Your task to perform on an android device: How do I get to the nearest Nordstrom? Image 0: 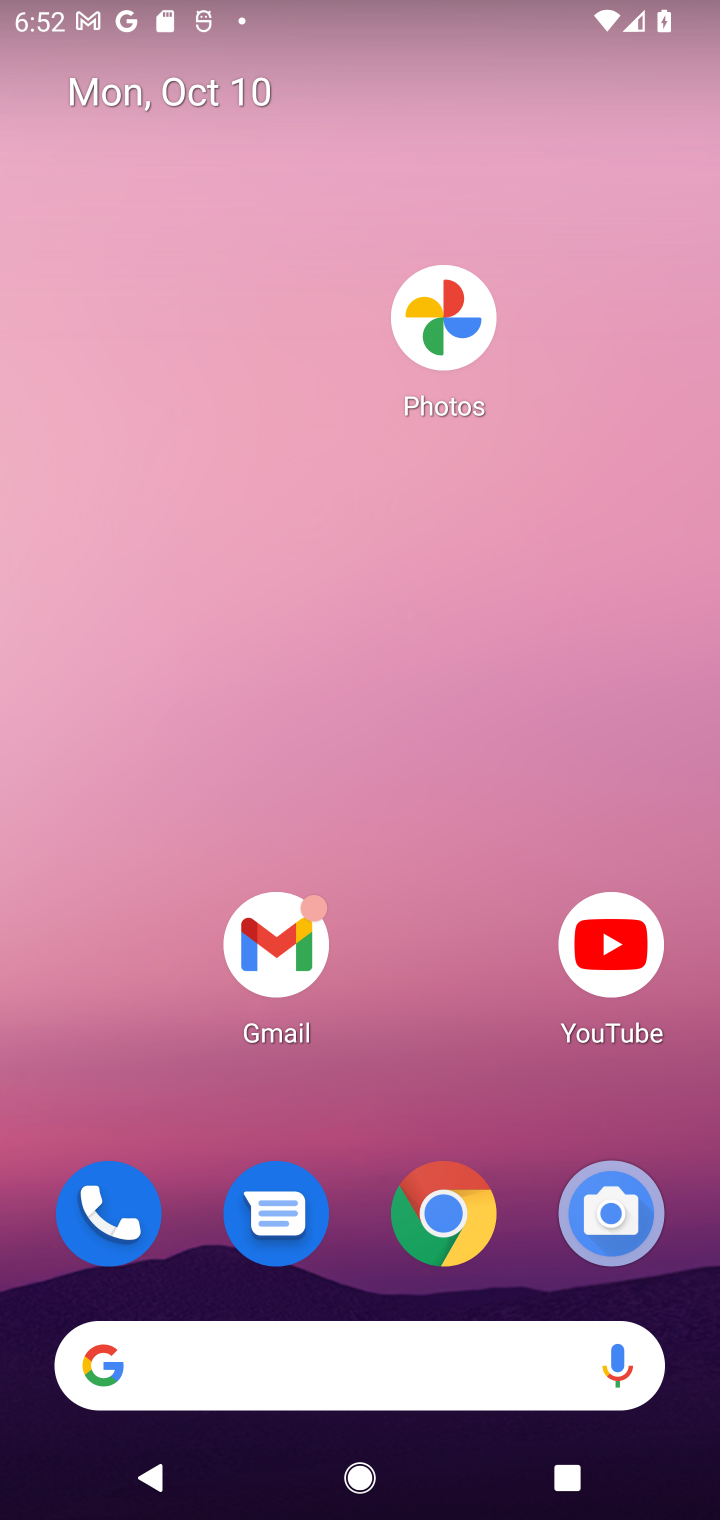
Step 0: click (371, 1349)
Your task to perform on an android device: How do I get to the nearest Nordstrom? Image 1: 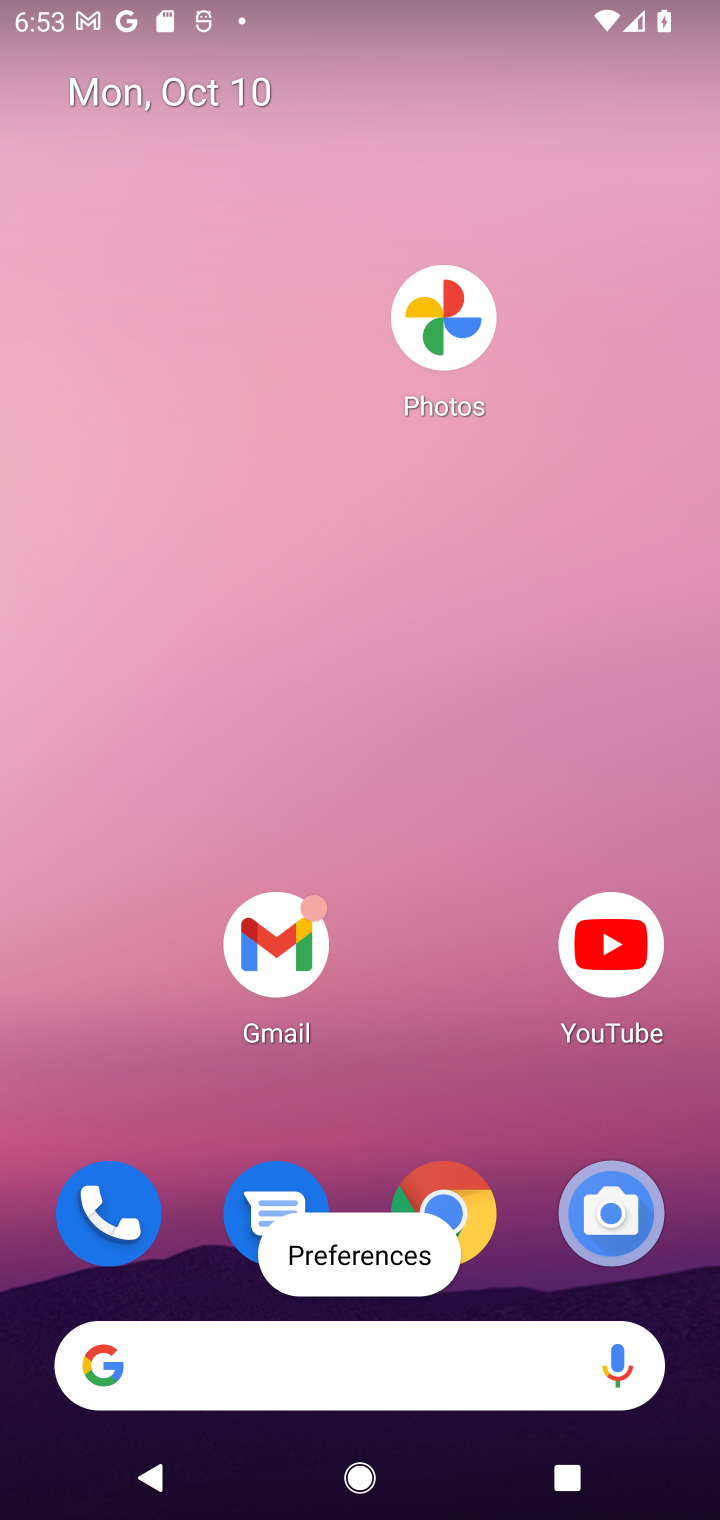
Step 1: click (298, 1375)
Your task to perform on an android device: How do I get to the nearest Nordstrom? Image 2: 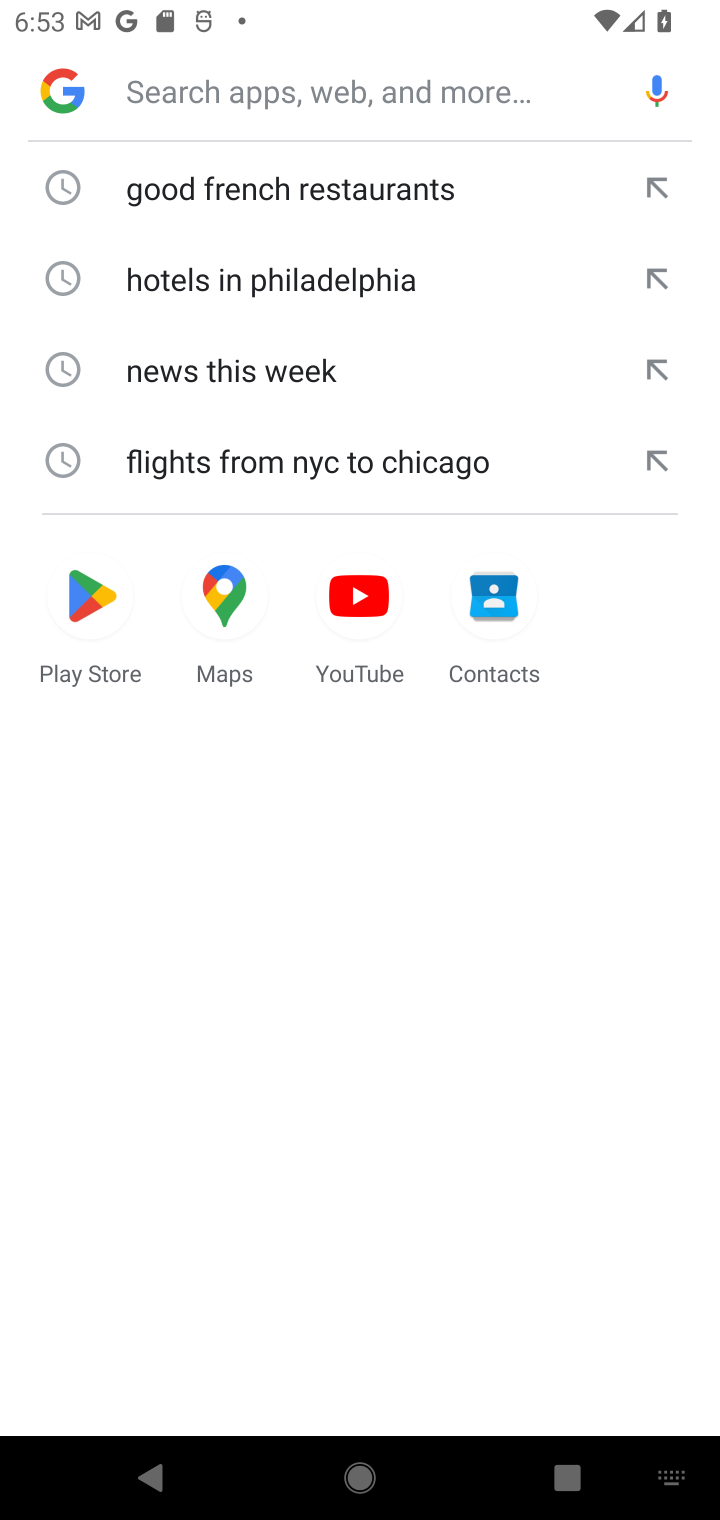
Step 2: type "get to the nearest Nordstrom"
Your task to perform on an android device: How do I get to the nearest Nordstrom? Image 3: 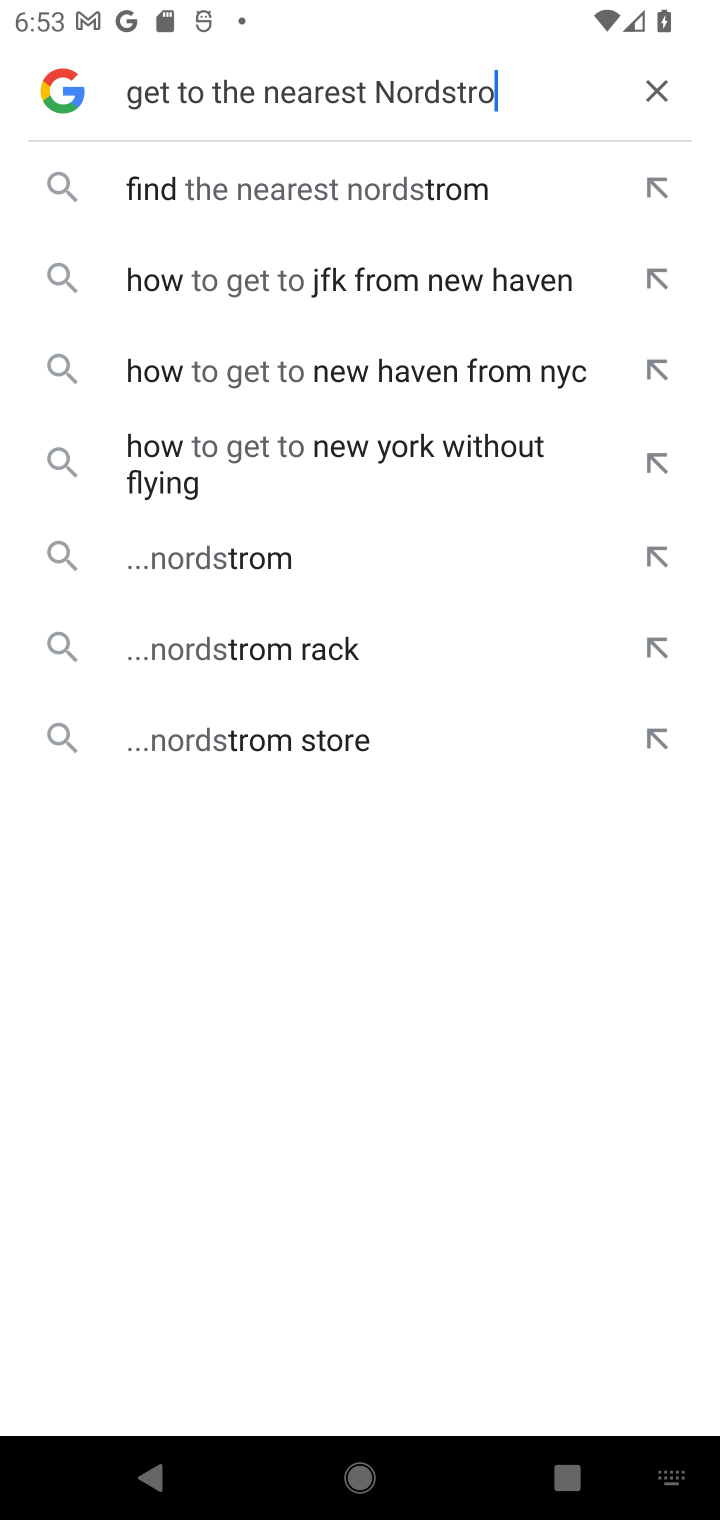
Step 3: type ""
Your task to perform on an android device: How do I get to the nearest Nordstrom? Image 4: 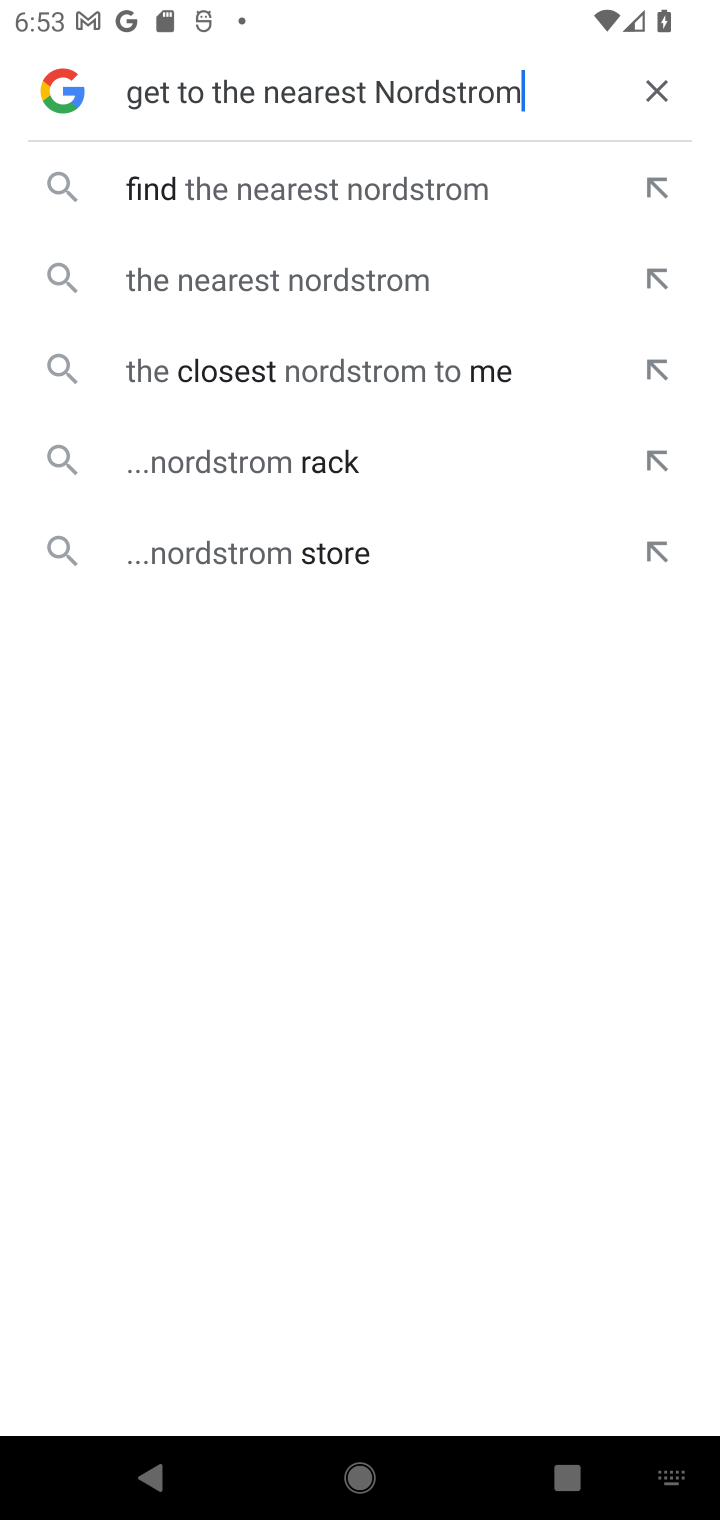
Step 4: click (430, 196)
Your task to perform on an android device: How do I get to the nearest Nordstrom? Image 5: 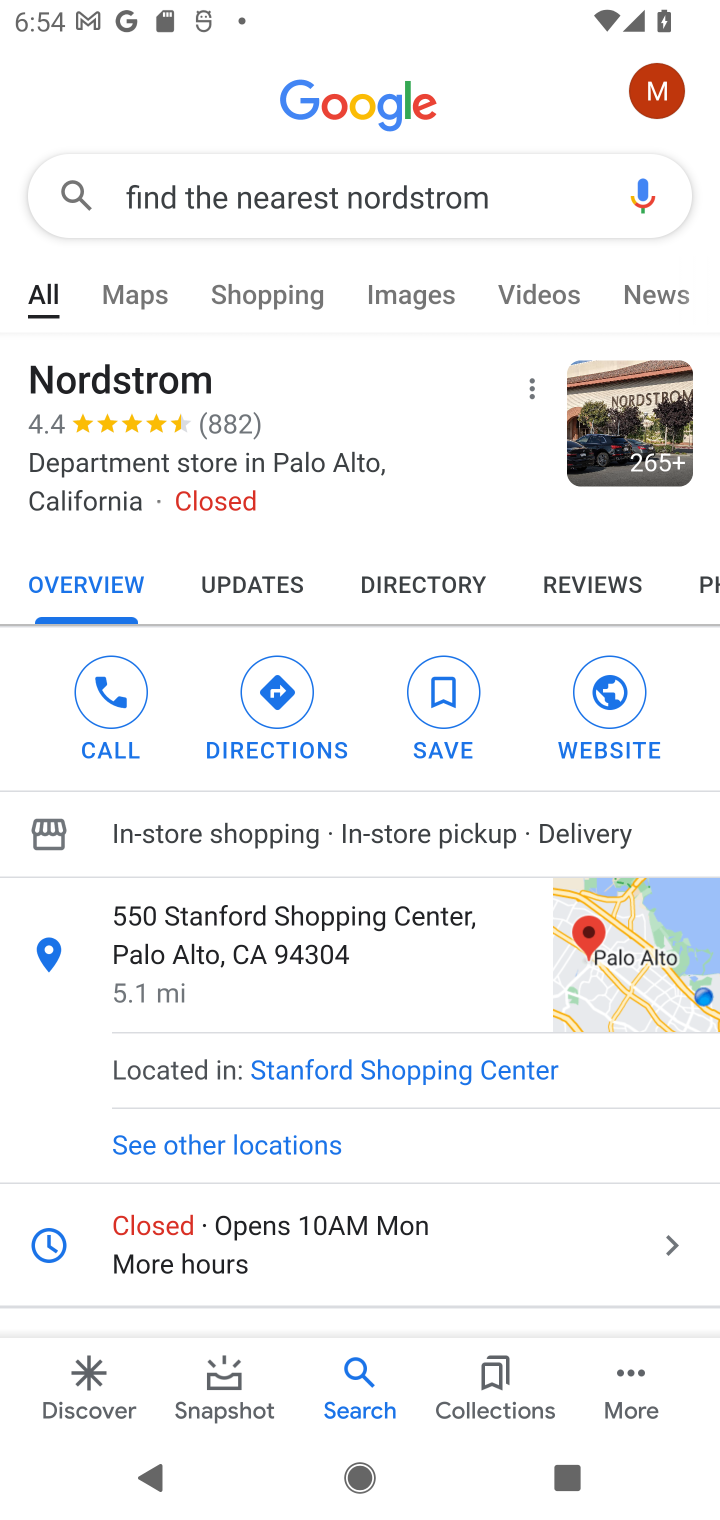
Step 5: task complete